Your task to perform on an android device: see tabs open on other devices in the chrome app Image 0: 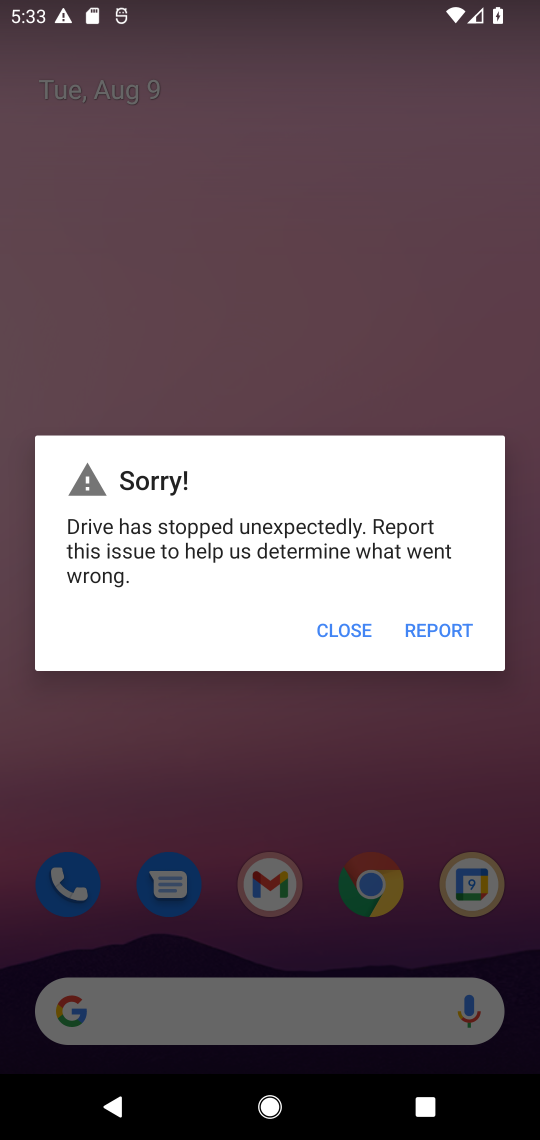
Step 0: press home button
Your task to perform on an android device: see tabs open on other devices in the chrome app Image 1: 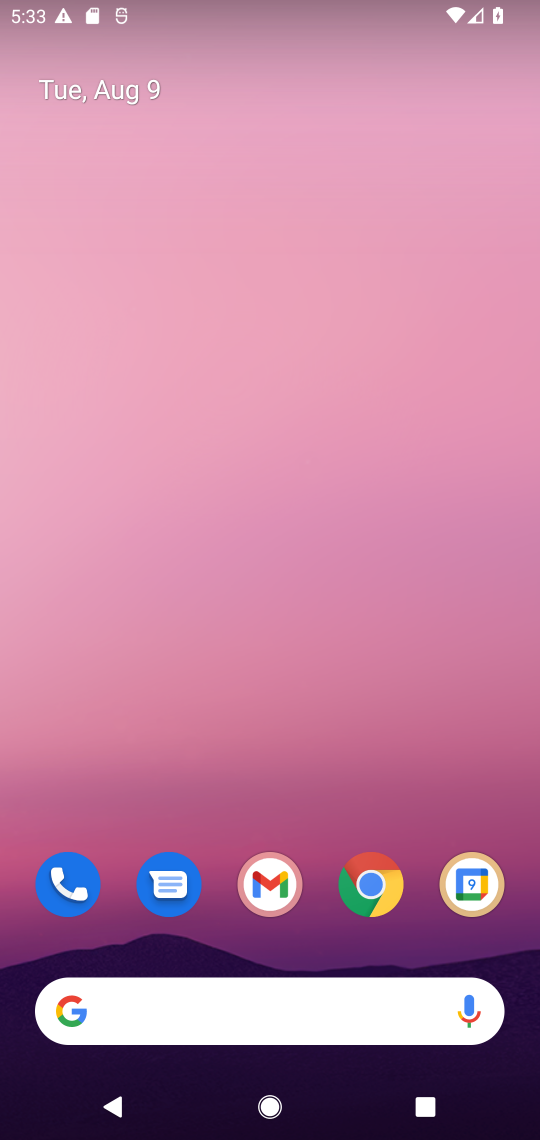
Step 1: drag from (238, 1004) to (241, 215)
Your task to perform on an android device: see tabs open on other devices in the chrome app Image 2: 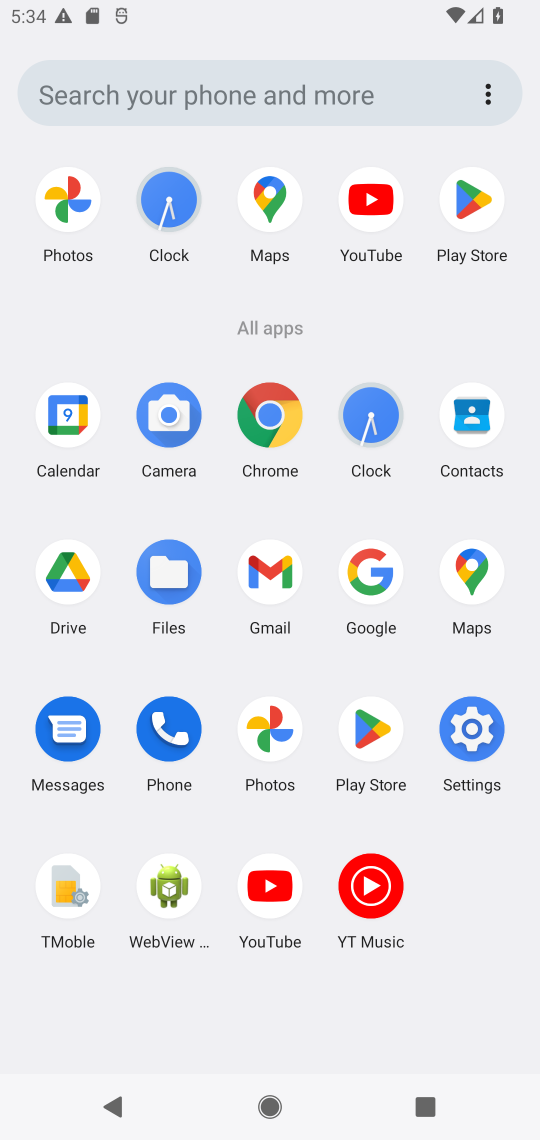
Step 2: click (271, 413)
Your task to perform on an android device: see tabs open on other devices in the chrome app Image 3: 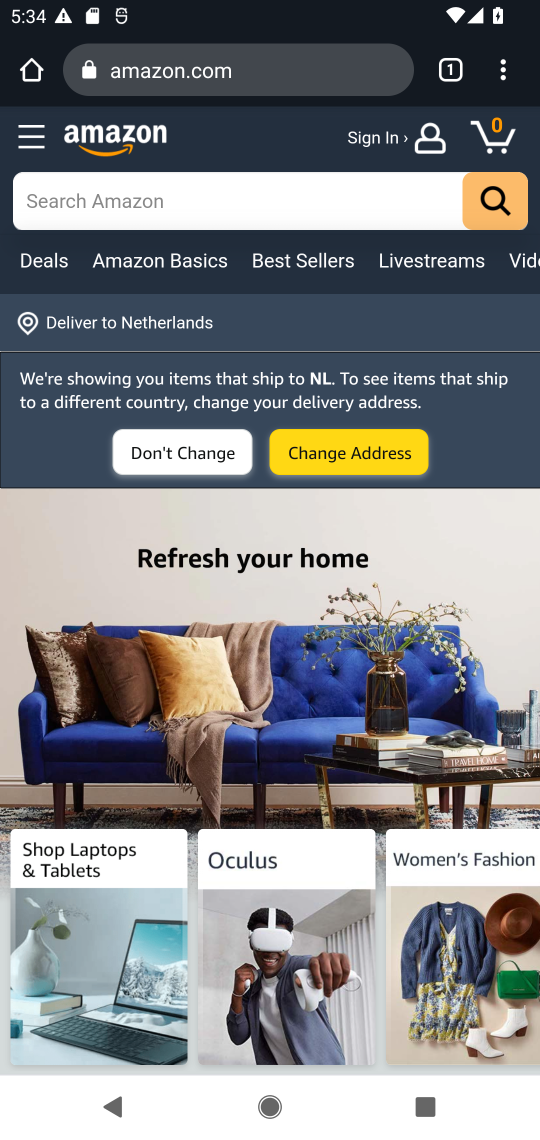
Step 3: task complete